Your task to perform on an android device: install app "Google Sheets" Image 0: 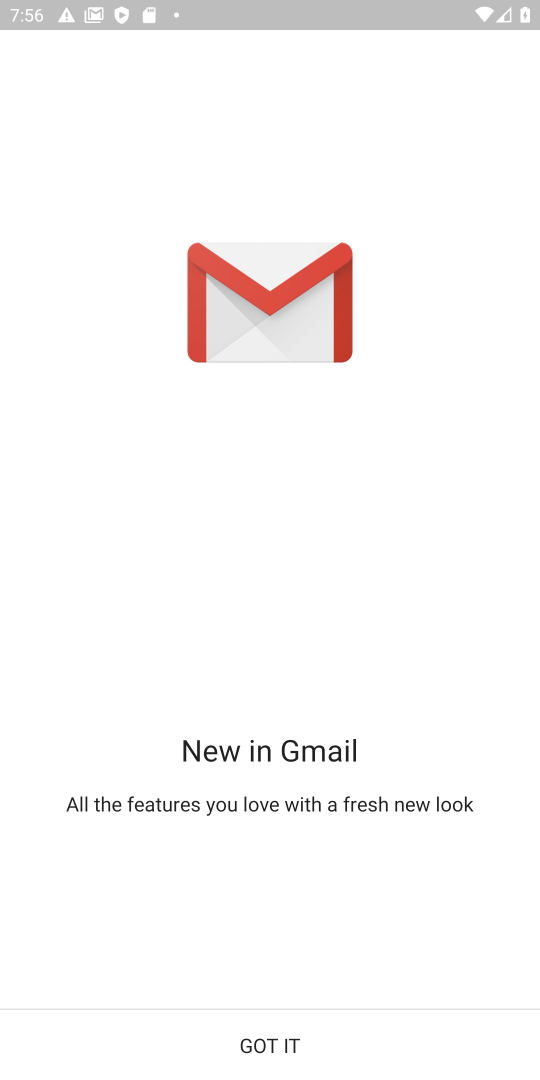
Step 0: press home button
Your task to perform on an android device: install app "Google Sheets" Image 1: 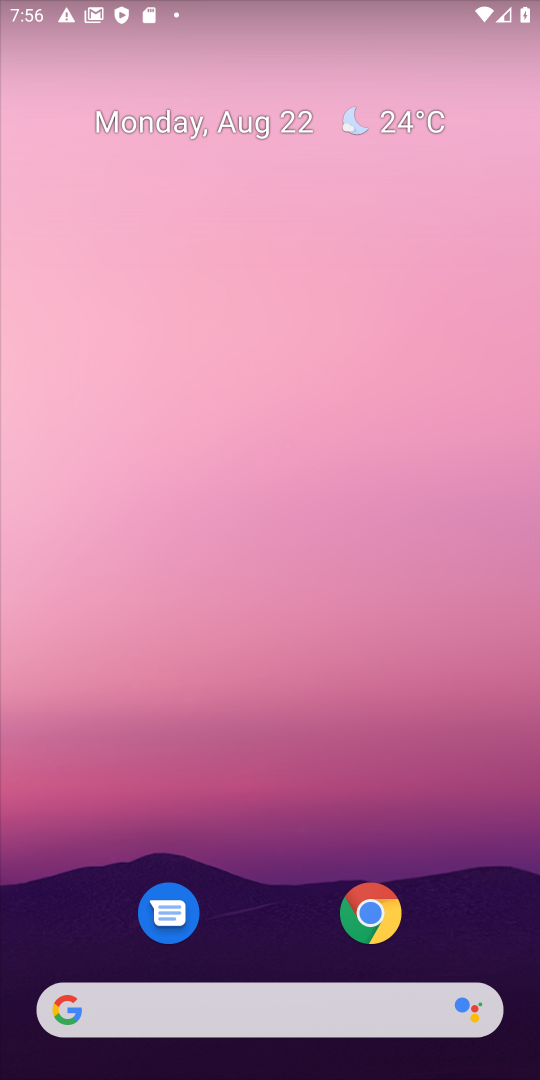
Step 1: drag from (138, 783) to (125, 158)
Your task to perform on an android device: install app "Google Sheets" Image 2: 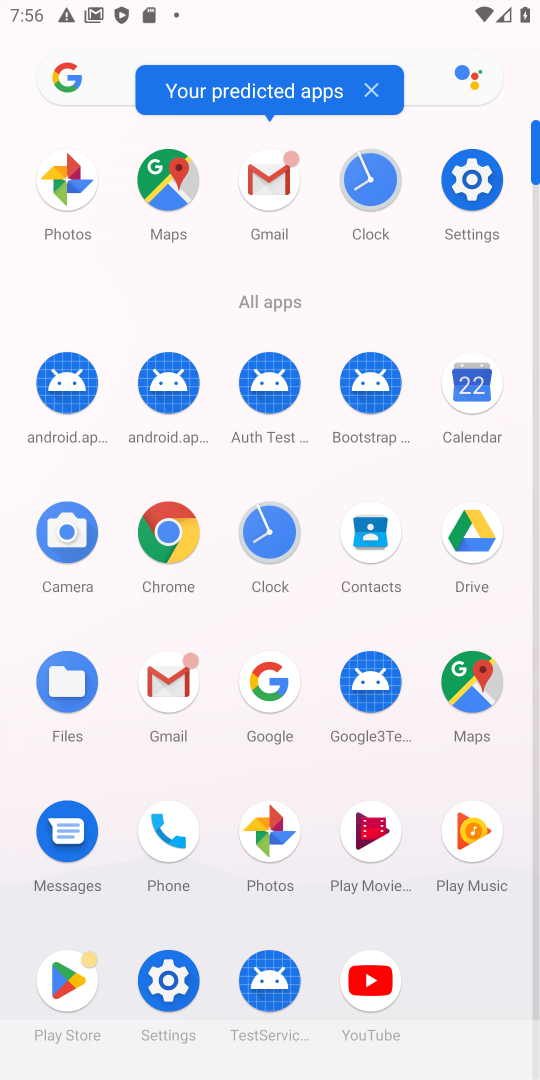
Step 2: click (75, 986)
Your task to perform on an android device: install app "Google Sheets" Image 3: 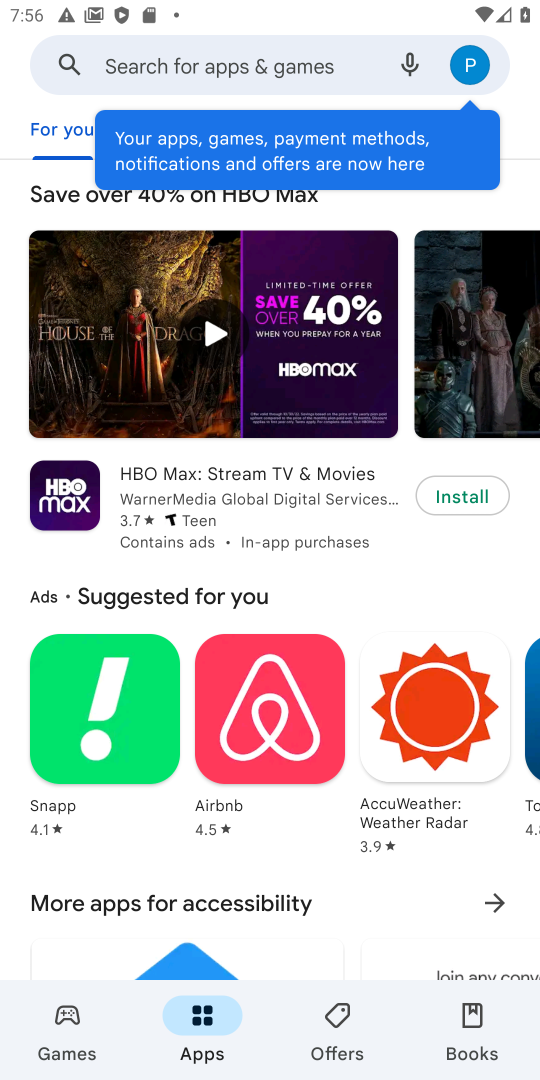
Step 3: click (331, 71)
Your task to perform on an android device: install app "Google Sheets" Image 4: 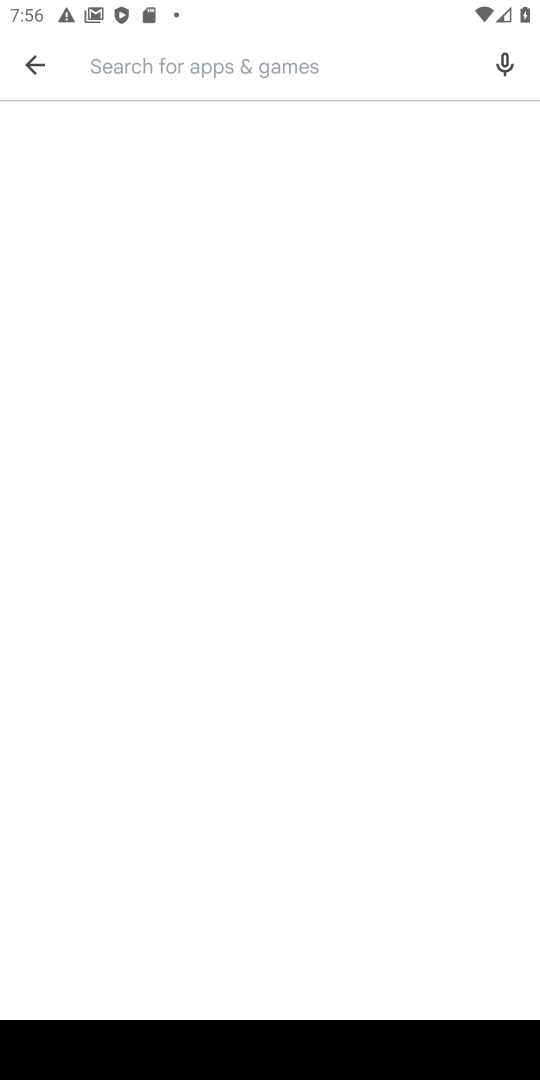
Step 4: type "google sheets"
Your task to perform on an android device: install app "Google Sheets" Image 5: 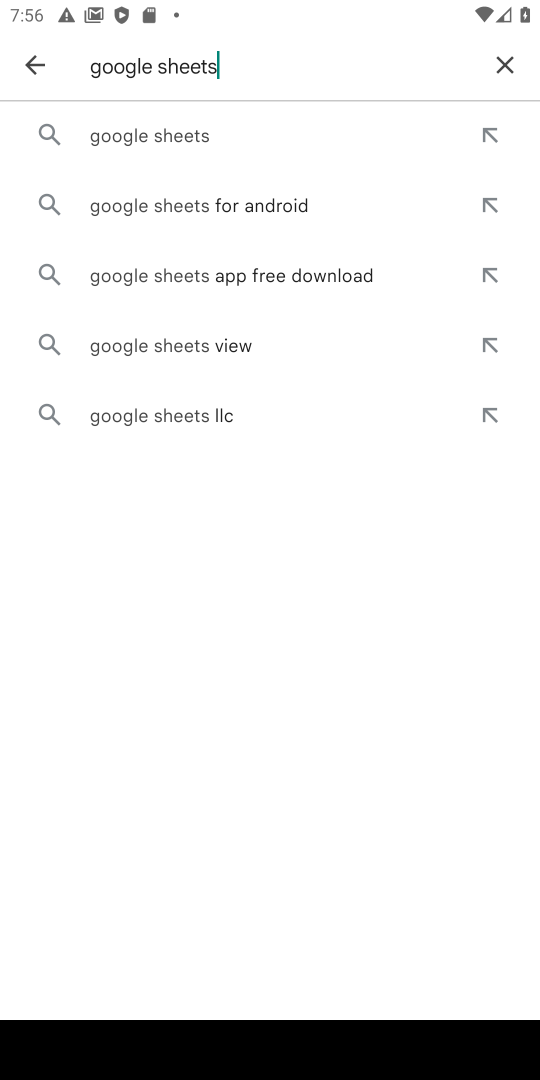
Step 5: click (216, 125)
Your task to perform on an android device: install app "Google Sheets" Image 6: 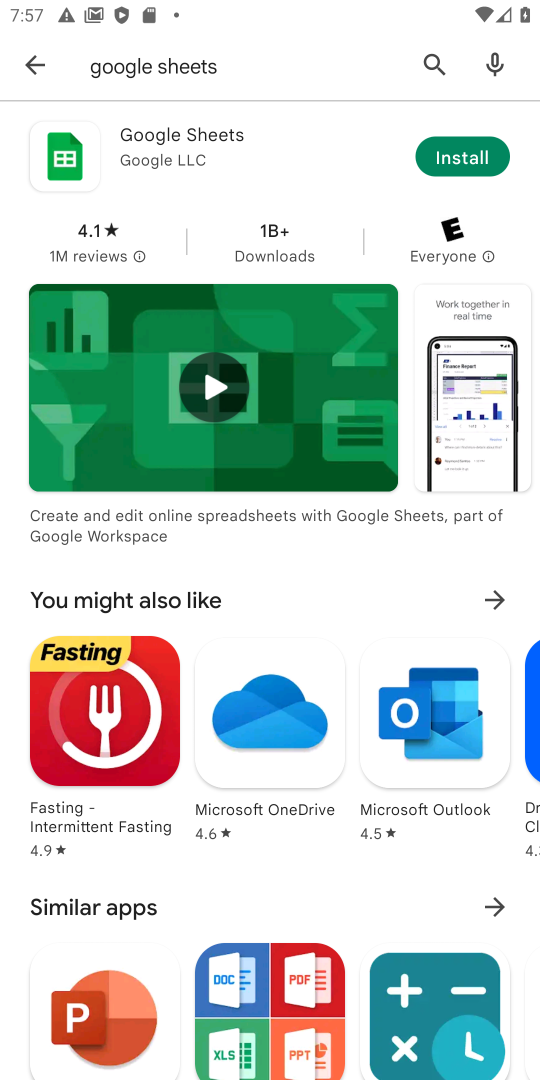
Step 6: click (471, 149)
Your task to perform on an android device: install app "Google Sheets" Image 7: 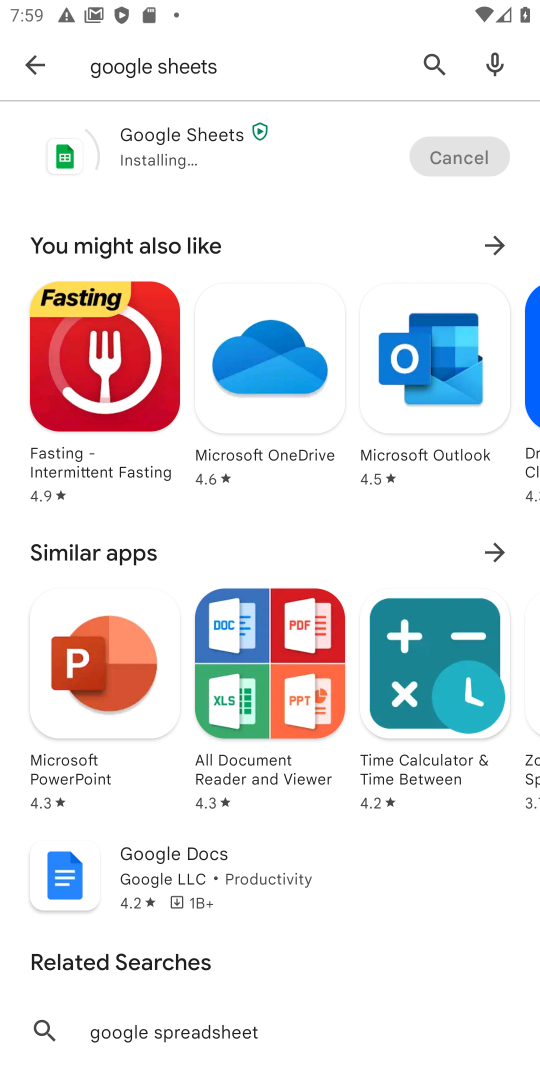
Step 7: task complete